Your task to perform on an android device: Go to ESPN.com Image 0: 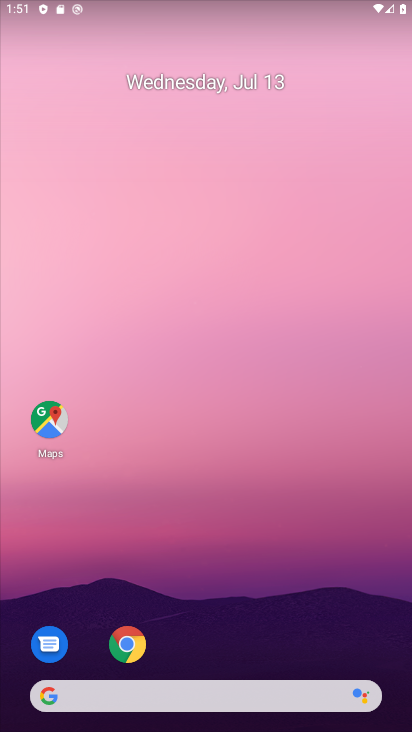
Step 0: click (126, 625)
Your task to perform on an android device: Go to ESPN.com Image 1: 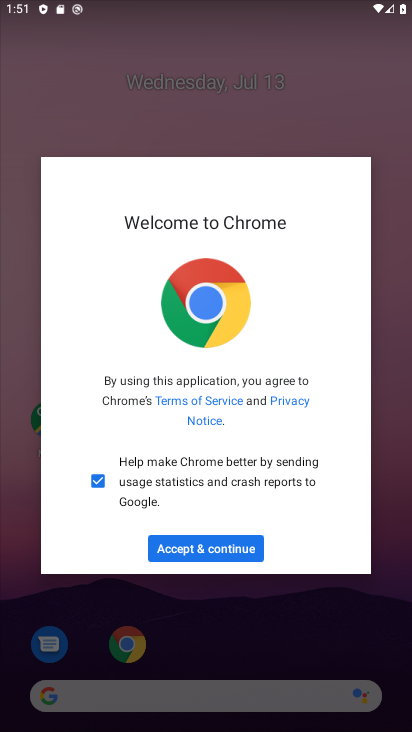
Step 1: click (186, 544)
Your task to perform on an android device: Go to ESPN.com Image 2: 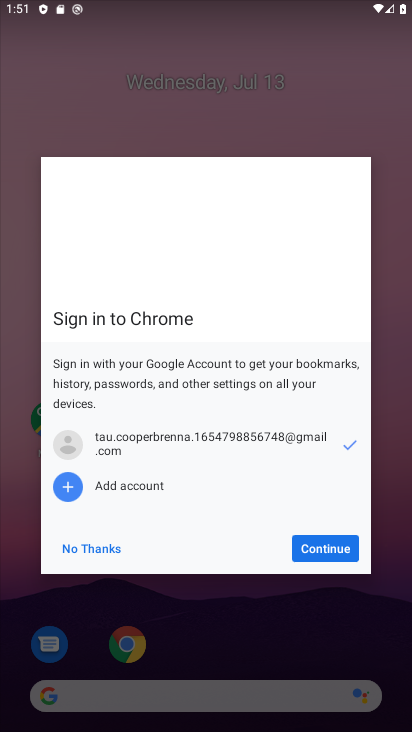
Step 2: click (318, 550)
Your task to perform on an android device: Go to ESPN.com Image 3: 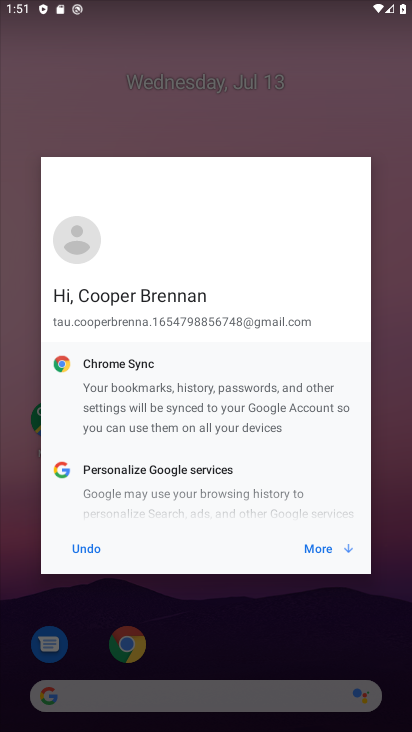
Step 3: click (321, 551)
Your task to perform on an android device: Go to ESPN.com Image 4: 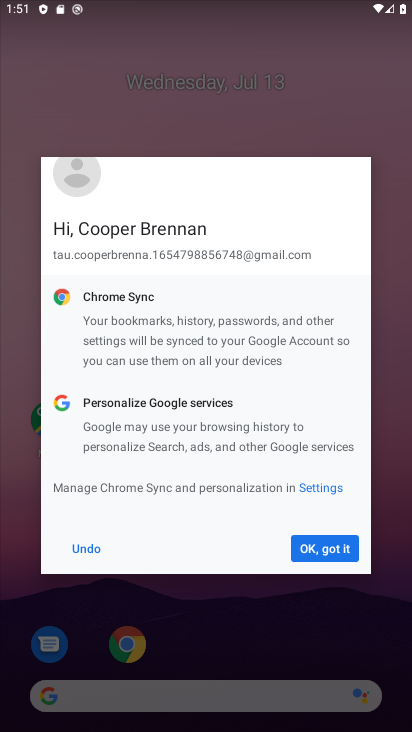
Step 4: click (315, 551)
Your task to perform on an android device: Go to ESPN.com Image 5: 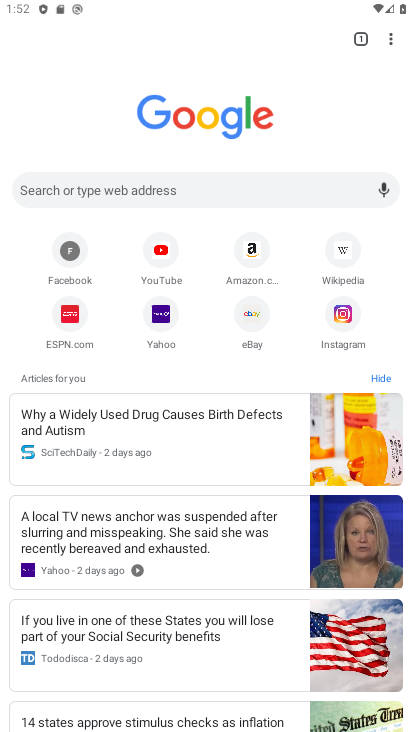
Step 5: click (62, 323)
Your task to perform on an android device: Go to ESPN.com Image 6: 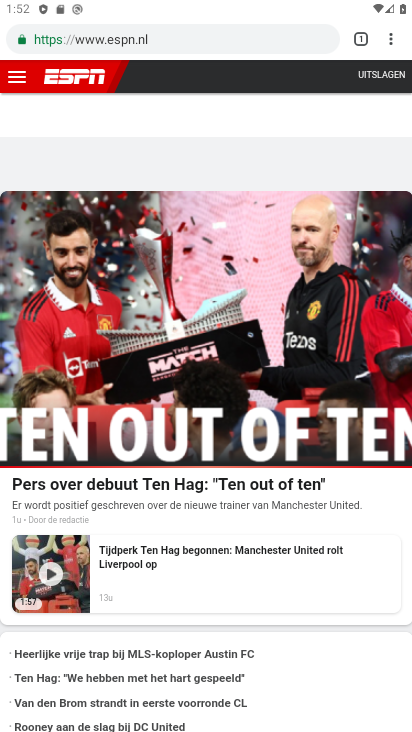
Step 6: task complete